Your task to perform on an android device: When is my next appointment? Image 0: 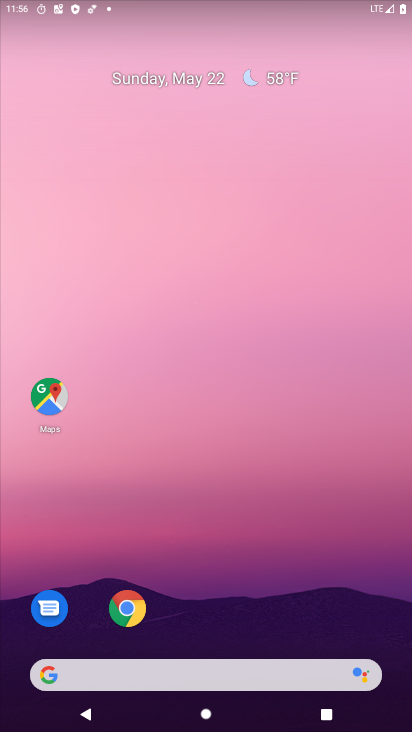
Step 0: drag from (245, 624) to (202, 73)
Your task to perform on an android device: When is my next appointment? Image 1: 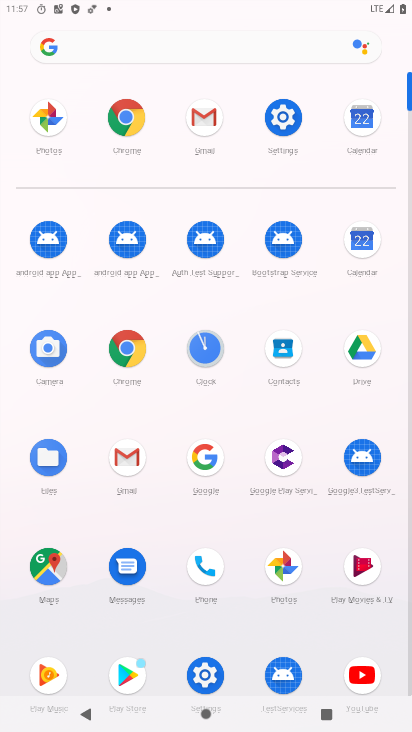
Step 1: click (373, 246)
Your task to perform on an android device: When is my next appointment? Image 2: 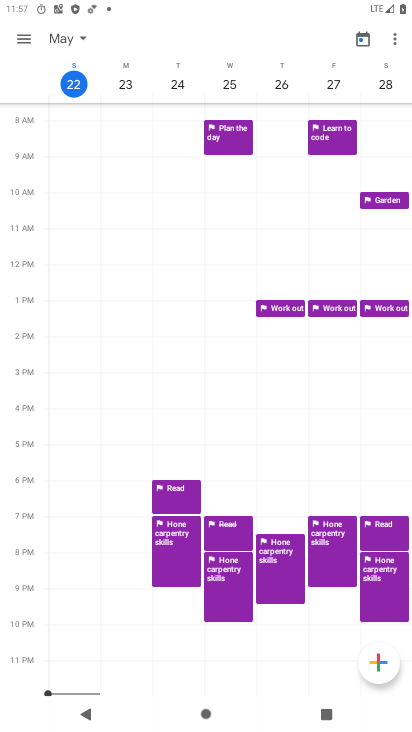
Step 2: click (23, 43)
Your task to perform on an android device: When is my next appointment? Image 3: 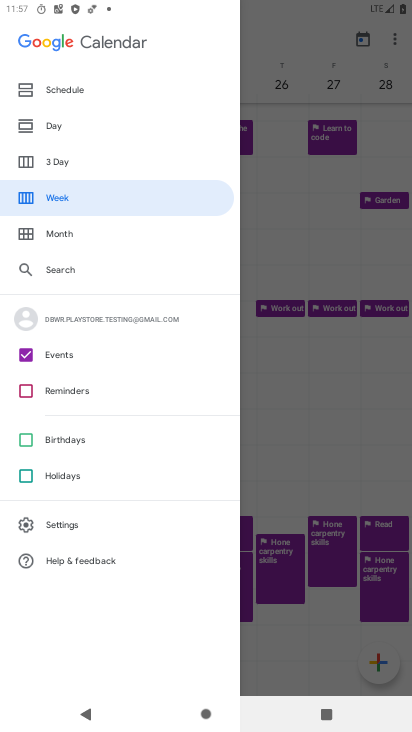
Step 3: click (50, 89)
Your task to perform on an android device: When is my next appointment? Image 4: 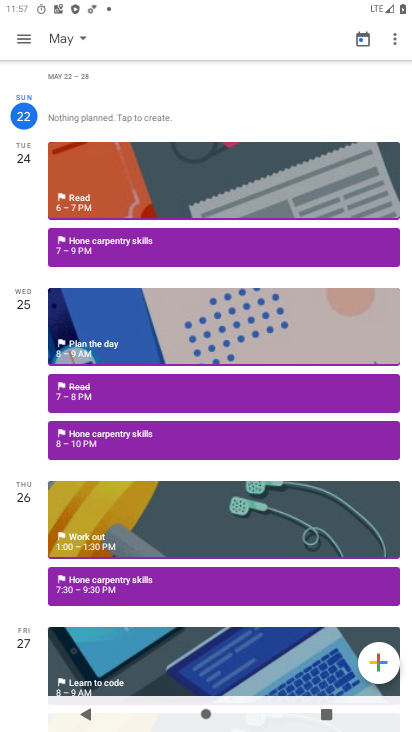
Step 4: click (75, 37)
Your task to perform on an android device: When is my next appointment? Image 5: 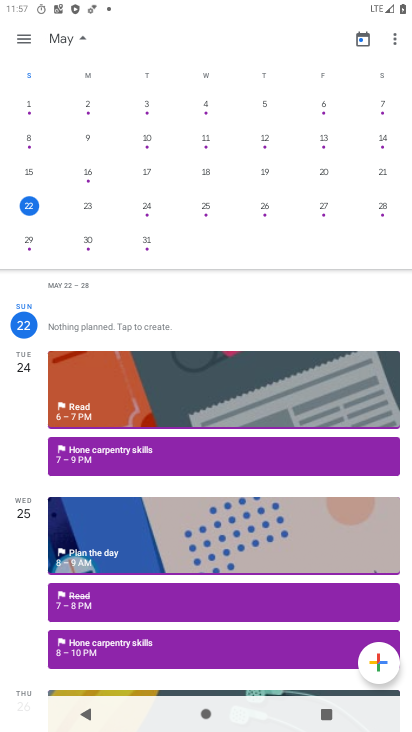
Step 5: click (94, 213)
Your task to perform on an android device: When is my next appointment? Image 6: 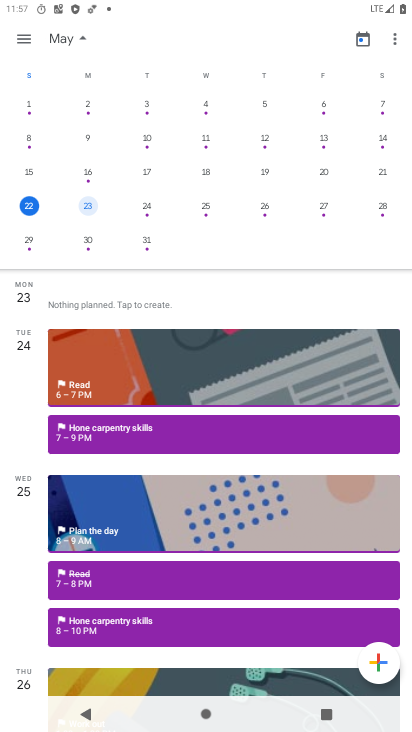
Step 6: click (81, 51)
Your task to perform on an android device: When is my next appointment? Image 7: 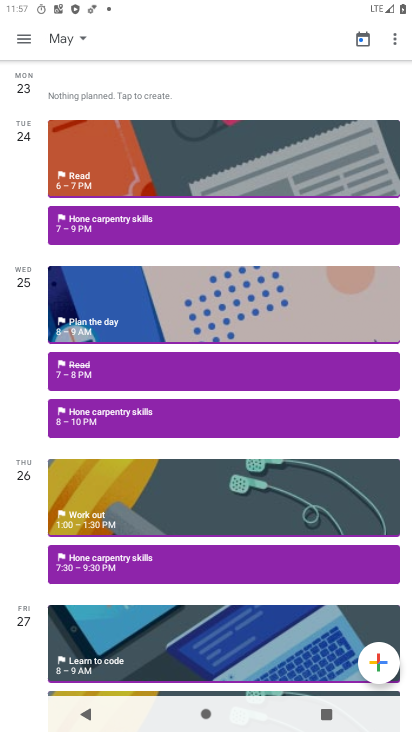
Step 7: task complete